Your task to perform on an android device: Open Yahoo.com Image 0: 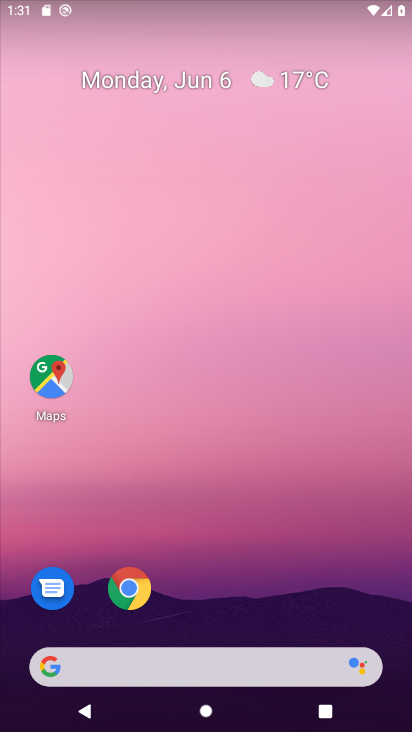
Step 0: click (210, 108)
Your task to perform on an android device: Open Yahoo.com Image 1: 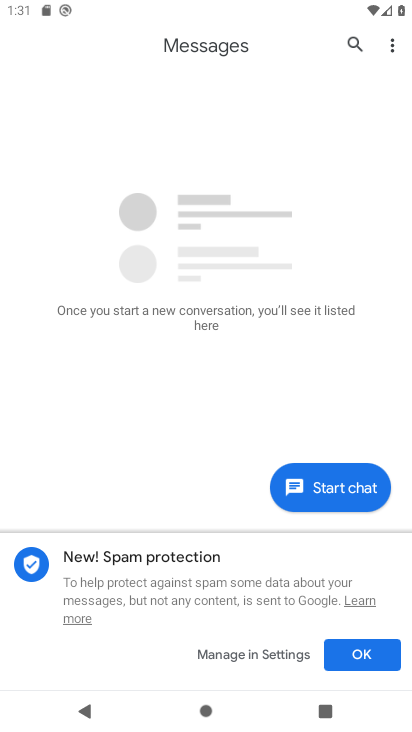
Step 1: press home button
Your task to perform on an android device: Open Yahoo.com Image 2: 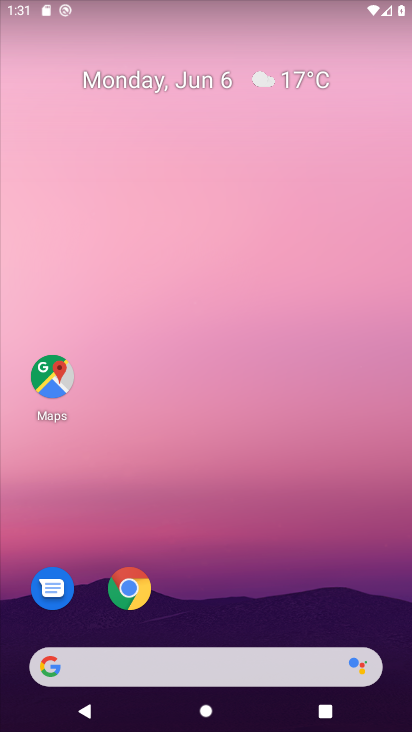
Step 2: click (127, 596)
Your task to perform on an android device: Open Yahoo.com Image 3: 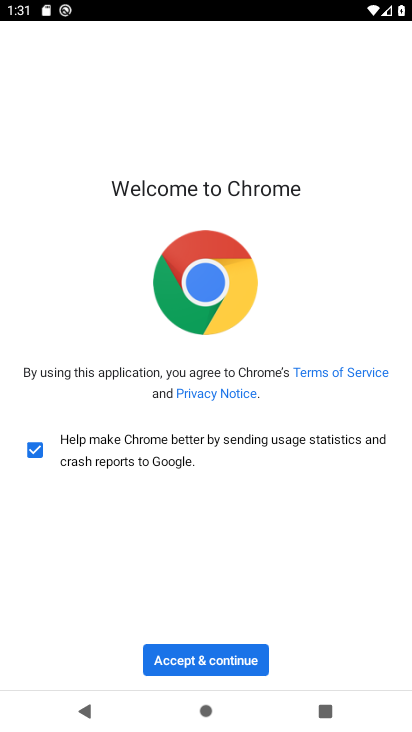
Step 3: click (203, 664)
Your task to perform on an android device: Open Yahoo.com Image 4: 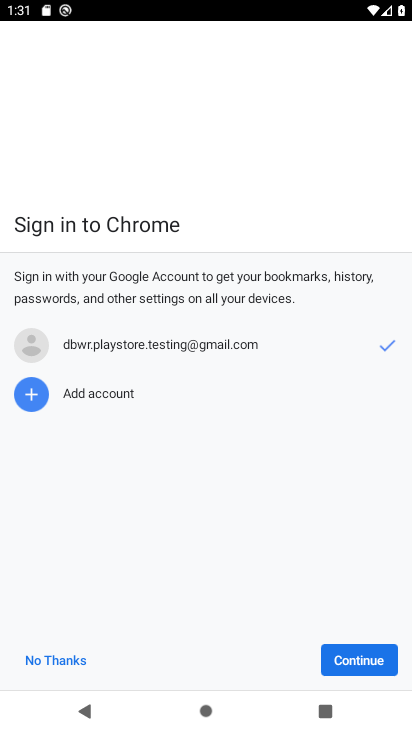
Step 4: click (351, 658)
Your task to perform on an android device: Open Yahoo.com Image 5: 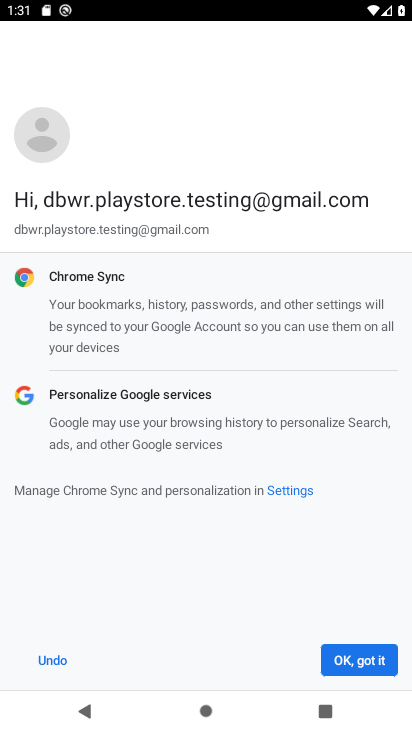
Step 5: click (351, 658)
Your task to perform on an android device: Open Yahoo.com Image 6: 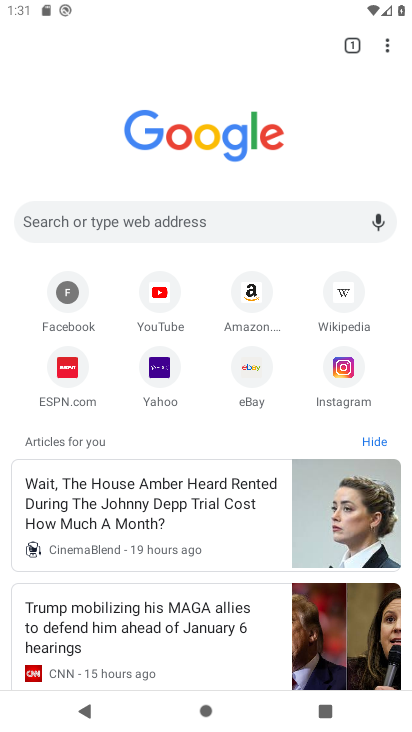
Step 6: click (162, 388)
Your task to perform on an android device: Open Yahoo.com Image 7: 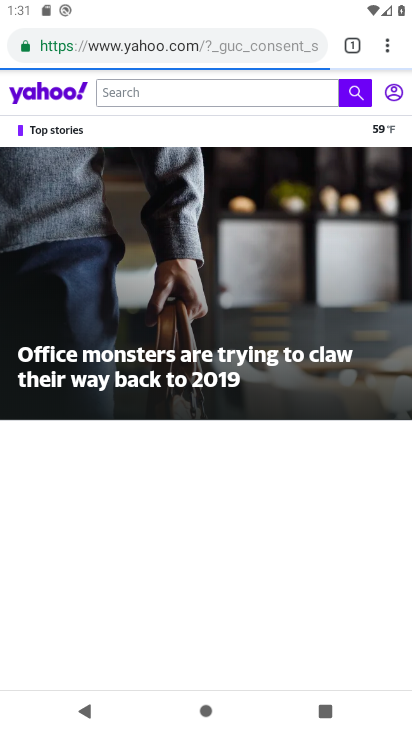
Step 7: task complete